Your task to perform on an android device: set an alarm Image 0: 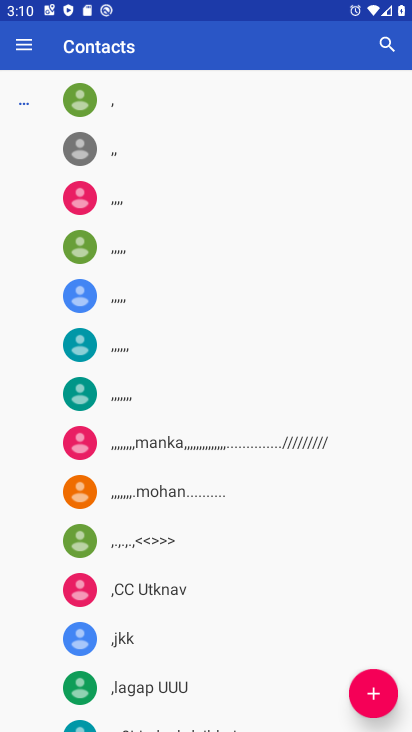
Step 0: press home button
Your task to perform on an android device: set an alarm Image 1: 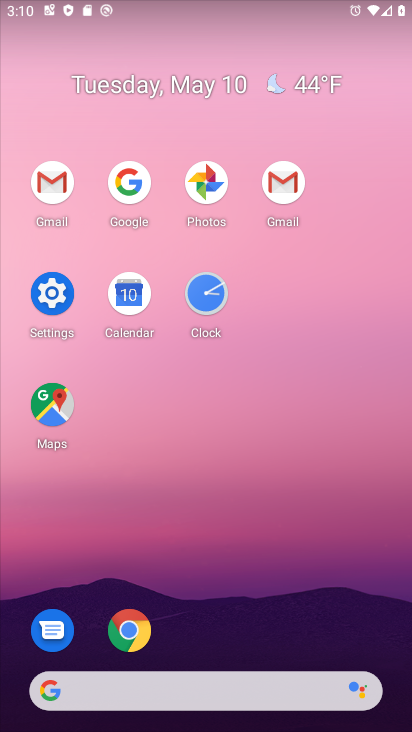
Step 1: click (201, 297)
Your task to perform on an android device: set an alarm Image 2: 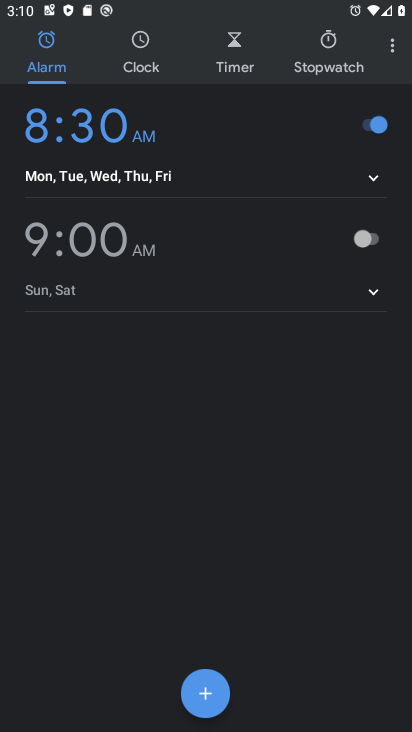
Step 2: click (369, 238)
Your task to perform on an android device: set an alarm Image 3: 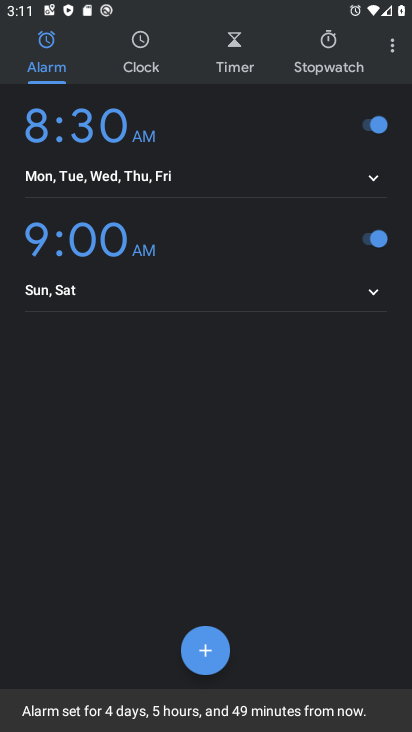
Step 3: task complete